Your task to perform on an android device: set the timer Image 0: 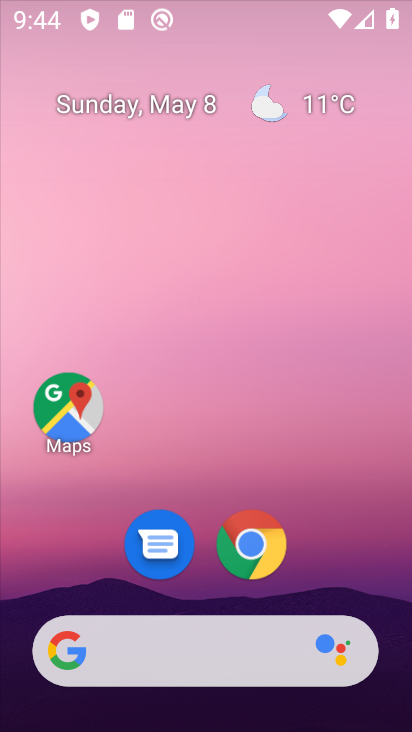
Step 0: drag from (362, 363) to (329, 59)
Your task to perform on an android device: set the timer Image 1: 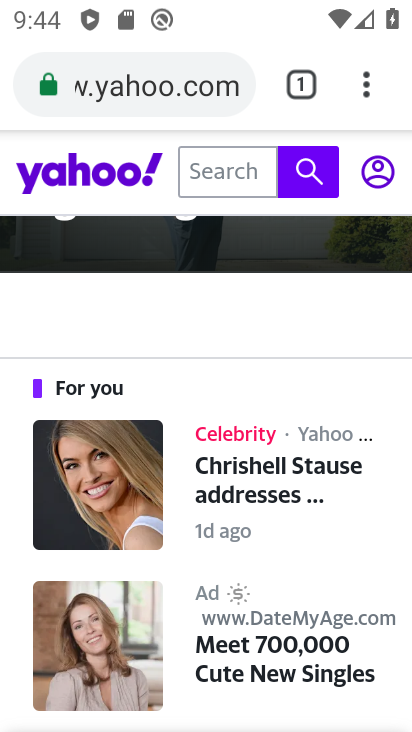
Step 1: press home button
Your task to perform on an android device: set the timer Image 2: 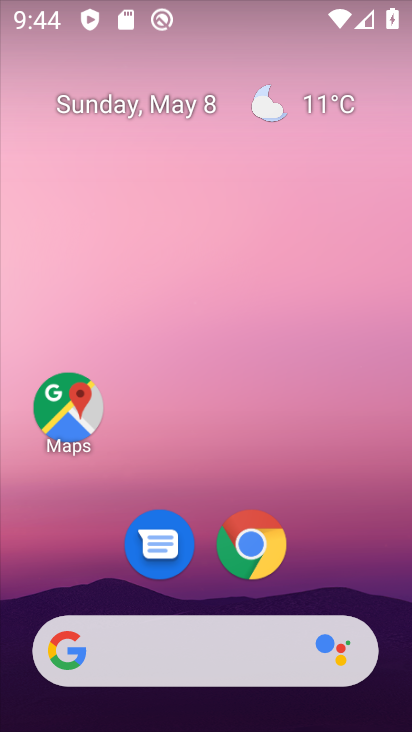
Step 2: drag from (369, 580) to (340, 121)
Your task to perform on an android device: set the timer Image 3: 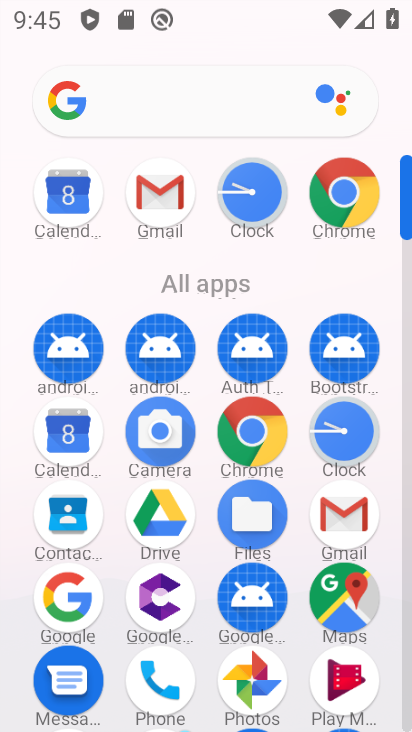
Step 3: click (254, 205)
Your task to perform on an android device: set the timer Image 4: 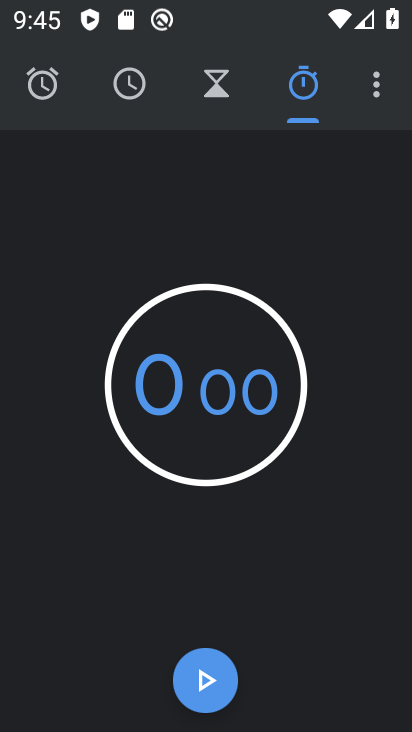
Step 4: click (208, 87)
Your task to perform on an android device: set the timer Image 5: 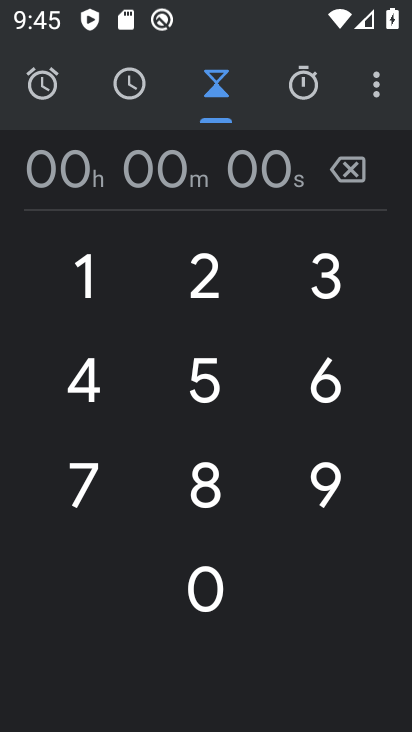
Step 5: click (204, 482)
Your task to perform on an android device: set the timer Image 6: 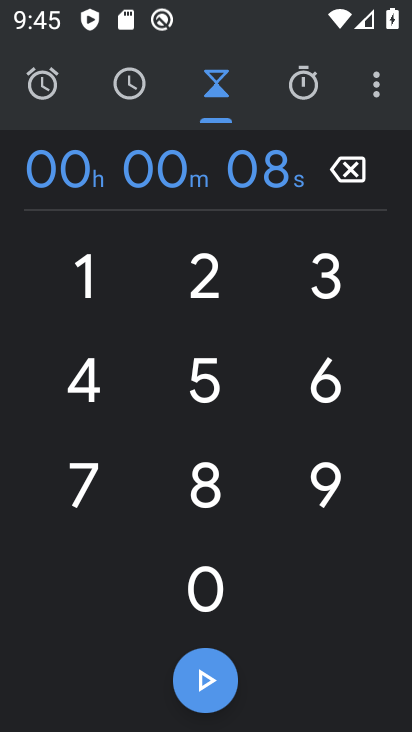
Step 6: click (213, 698)
Your task to perform on an android device: set the timer Image 7: 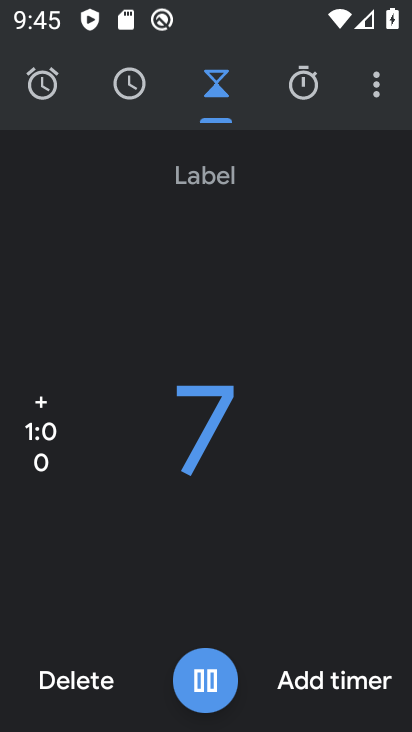
Step 7: task complete